Your task to perform on an android device: turn off smart reply in the gmail app Image 0: 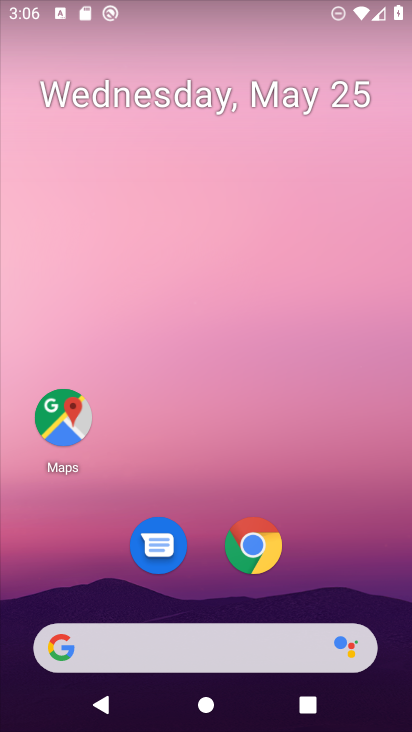
Step 0: drag from (376, 545) to (329, 6)
Your task to perform on an android device: turn off smart reply in the gmail app Image 1: 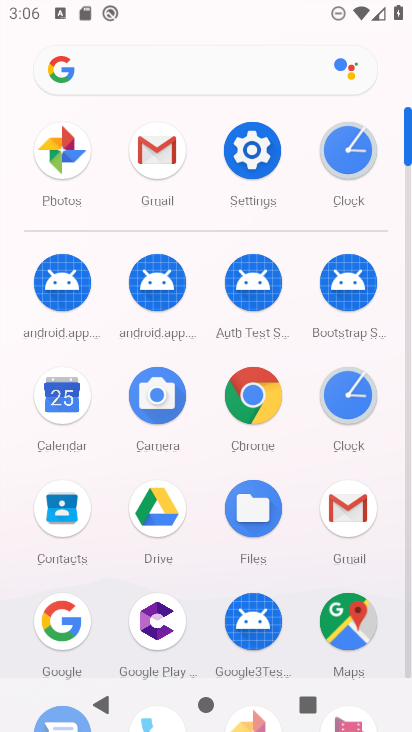
Step 1: click (152, 153)
Your task to perform on an android device: turn off smart reply in the gmail app Image 2: 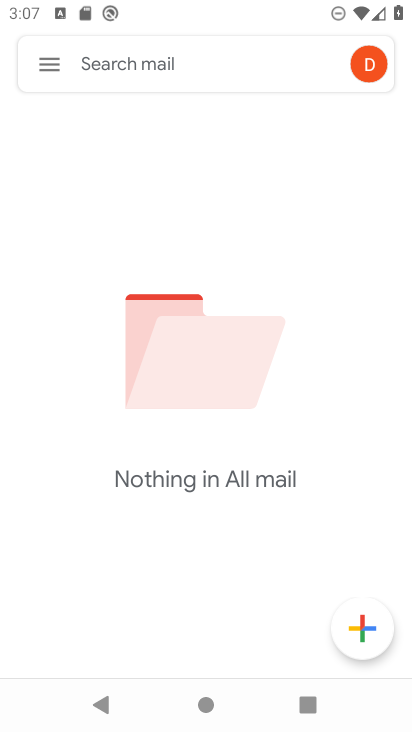
Step 2: task complete